Your task to perform on an android device: Clear the shopping cart on newegg. Add "razer naga" to the cart on newegg, then select checkout. Image 0: 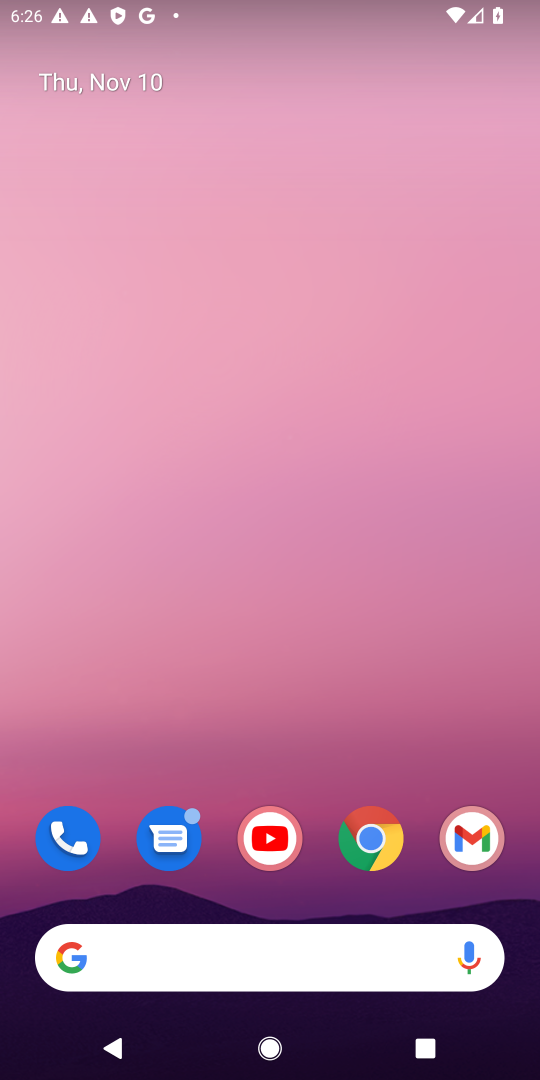
Step 0: drag from (322, 644) to (431, 77)
Your task to perform on an android device: Clear the shopping cart on newegg. Add "razer naga" to the cart on newegg, then select checkout. Image 1: 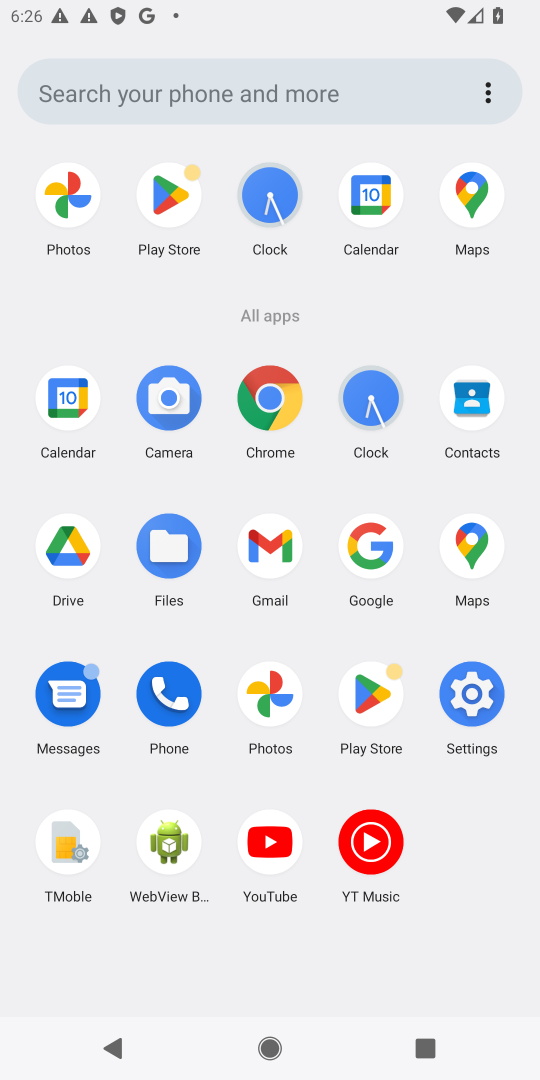
Step 1: click (283, 397)
Your task to perform on an android device: Clear the shopping cart on newegg. Add "razer naga" to the cart on newegg, then select checkout. Image 2: 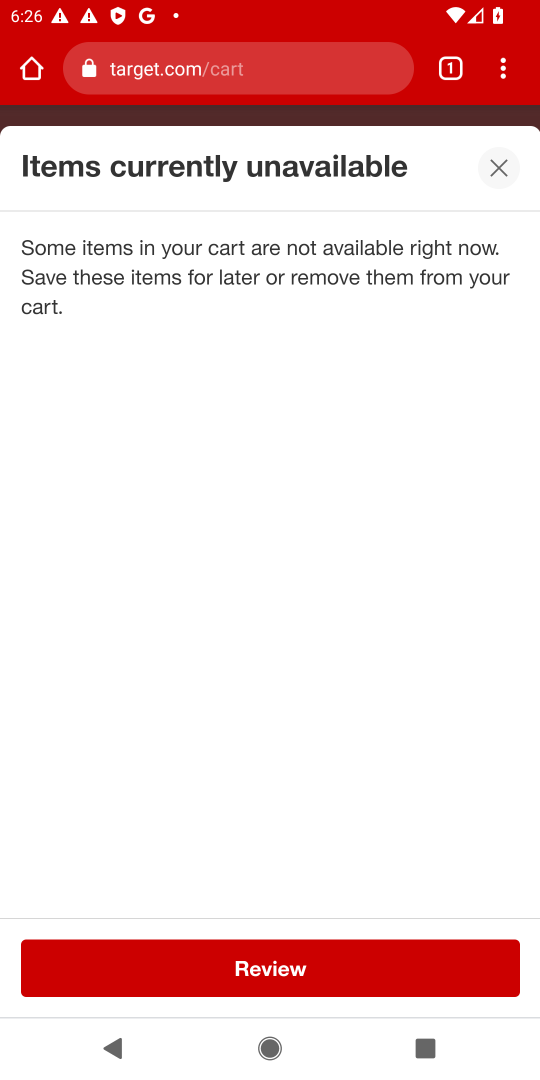
Step 2: click (320, 62)
Your task to perform on an android device: Clear the shopping cart on newegg. Add "razer naga" to the cart on newegg, then select checkout. Image 3: 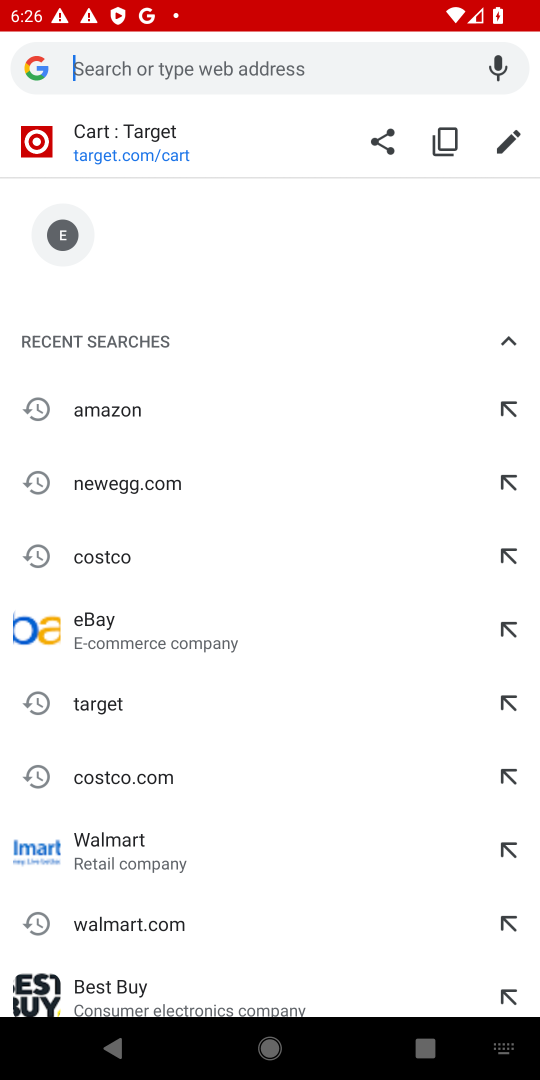
Step 3: type "newegg.com"
Your task to perform on an android device: Clear the shopping cart on newegg. Add "razer naga" to the cart on newegg, then select checkout. Image 4: 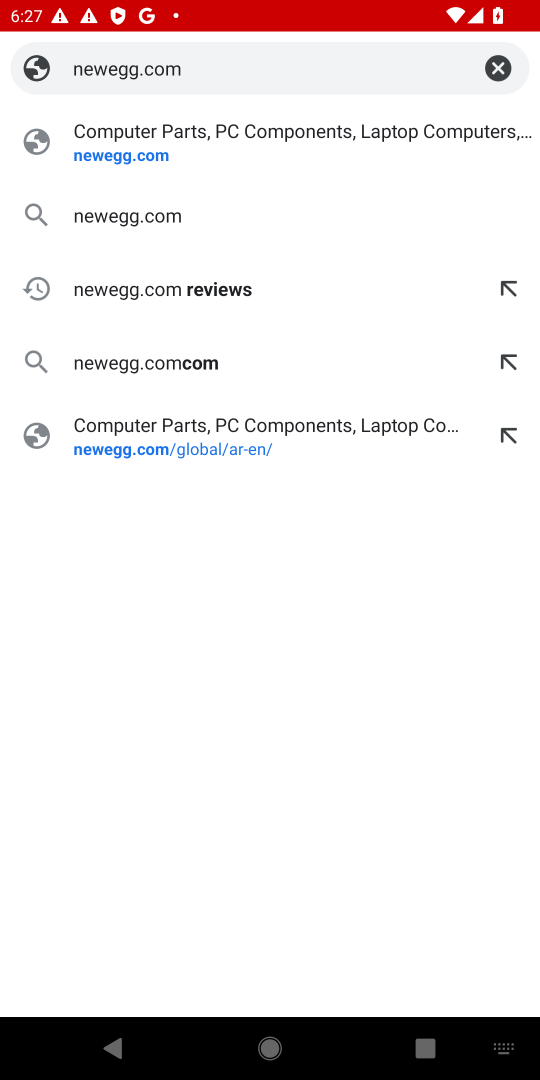
Step 4: press enter
Your task to perform on an android device: Clear the shopping cart on newegg. Add "razer naga" to the cart on newegg, then select checkout. Image 5: 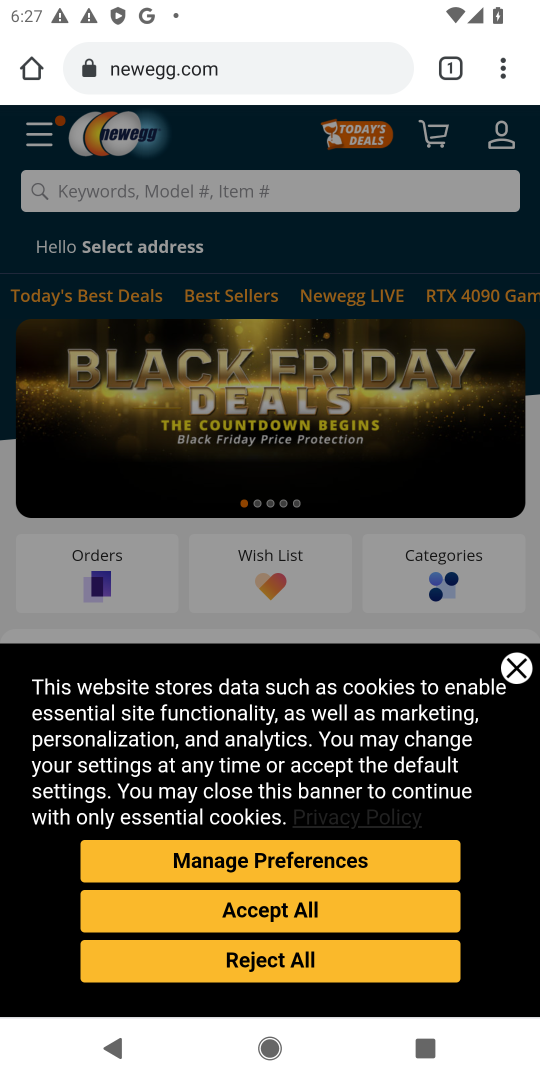
Step 5: click (447, 126)
Your task to perform on an android device: Clear the shopping cart on newegg. Add "razer naga" to the cart on newegg, then select checkout. Image 6: 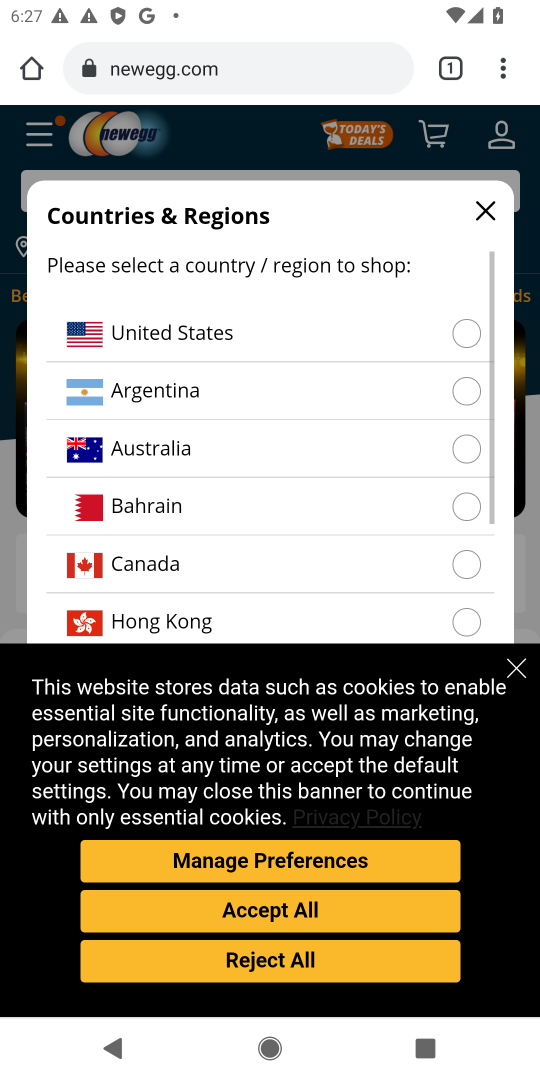
Step 6: click (435, 140)
Your task to perform on an android device: Clear the shopping cart on newegg. Add "razer naga" to the cart on newegg, then select checkout. Image 7: 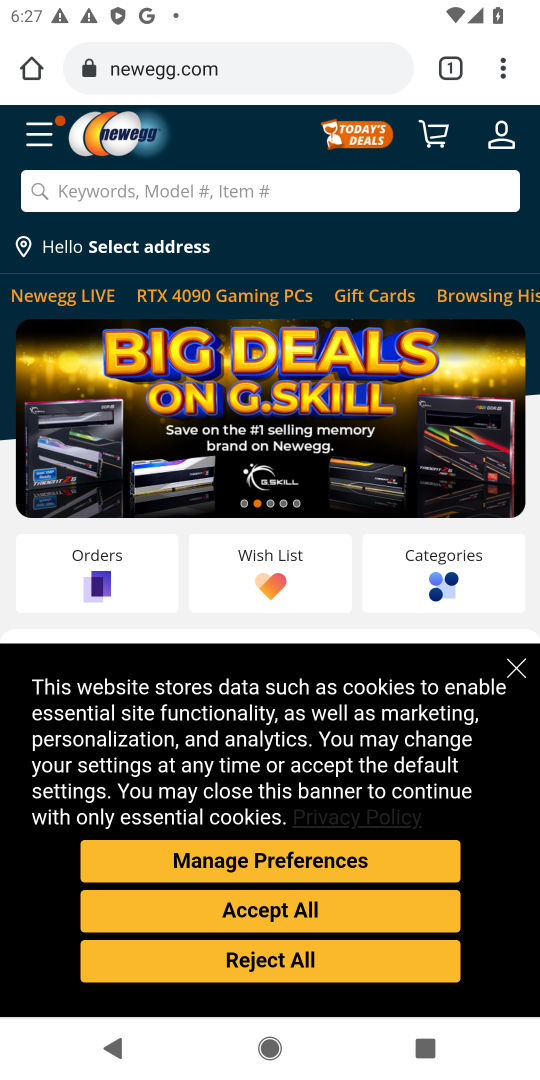
Step 7: click (435, 140)
Your task to perform on an android device: Clear the shopping cart on newegg. Add "razer naga" to the cart on newegg, then select checkout. Image 8: 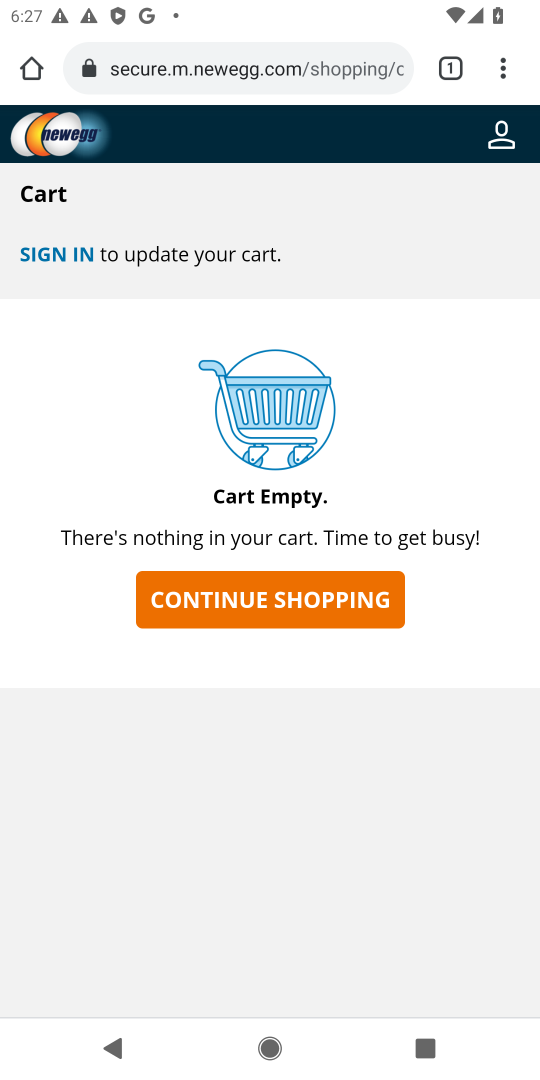
Step 8: click (274, 611)
Your task to perform on an android device: Clear the shopping cart on newegg. Add "razer naga" to the cart on newegg, then select checkout. Image 9: 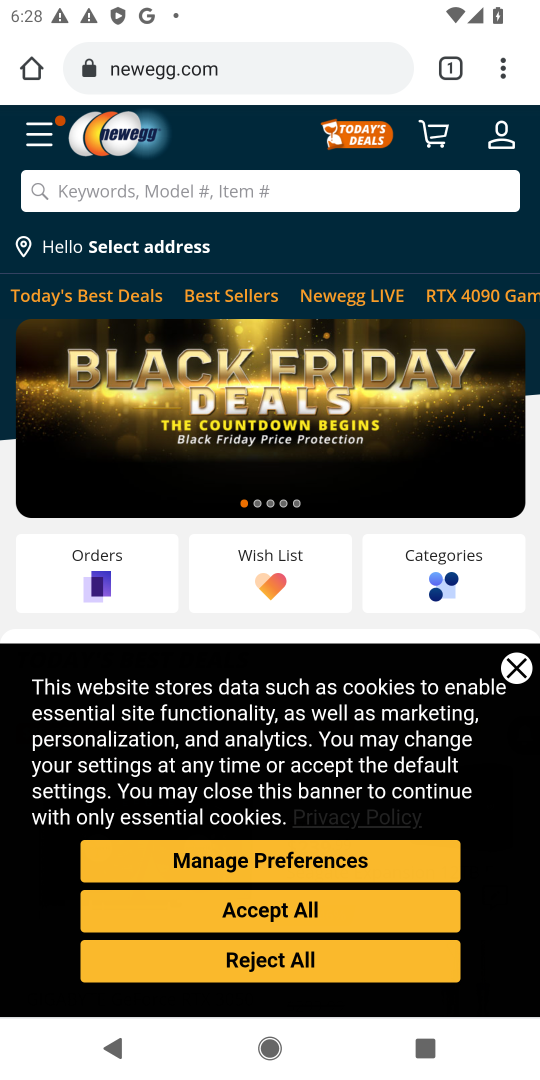
Step 9: click (308, 179)
Your task to perform on an android device: Clear the shopping cart on newegg. Add "razer naga" to the cart on newegg, then select checkout. Image 10: 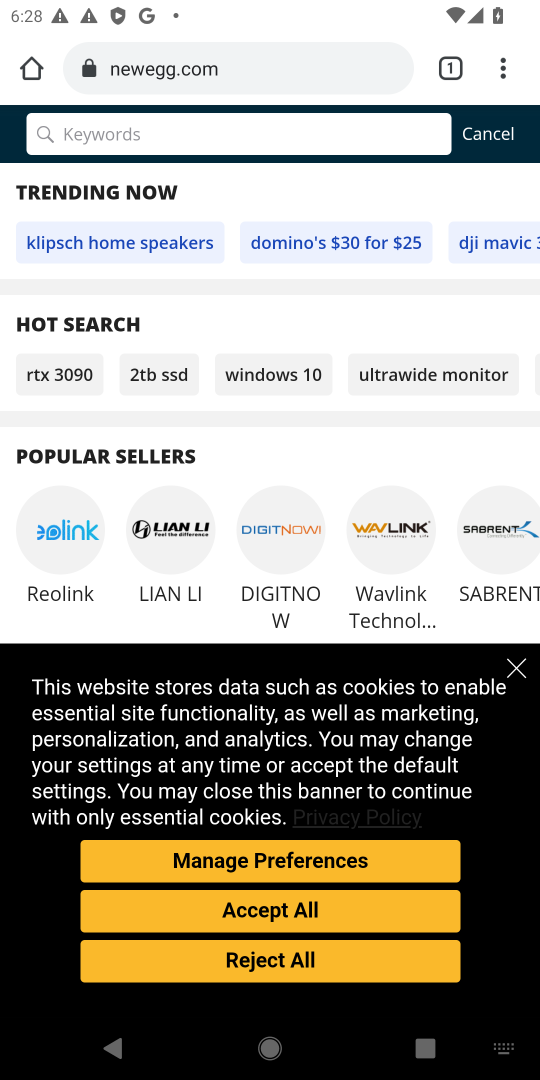
Step 10: type "razer naga"
Your task to perform on an android device: Clear the shopping cart on newegg. Add "razer naga" to the cart on newegg, then select checkout. Image 11: 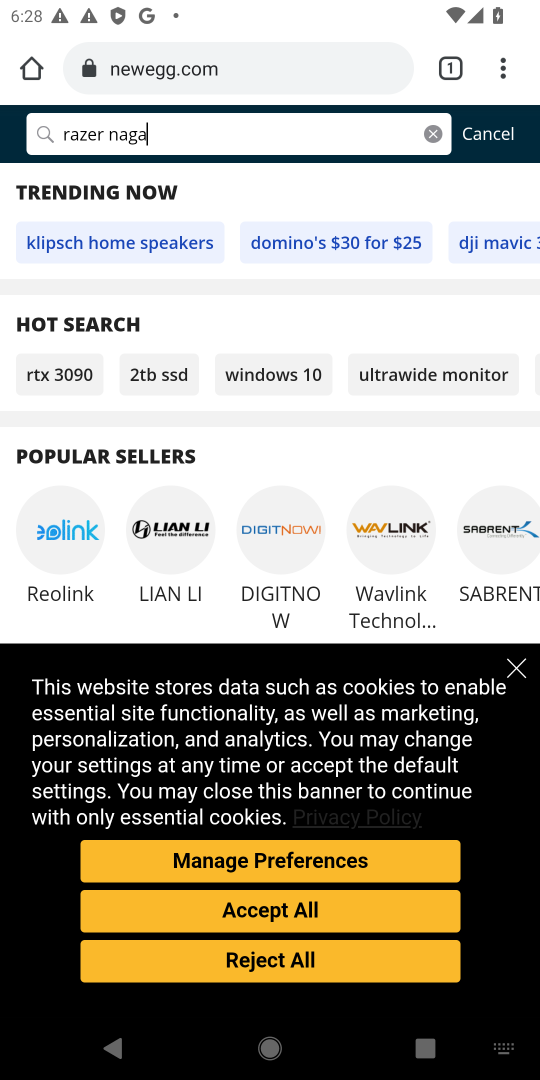
Step 11: press enter
Your task to perform on an android device: Clear the shopping cart on newegg. Add "razer naga" to the cart on newegg, then select checkout. Image 12: 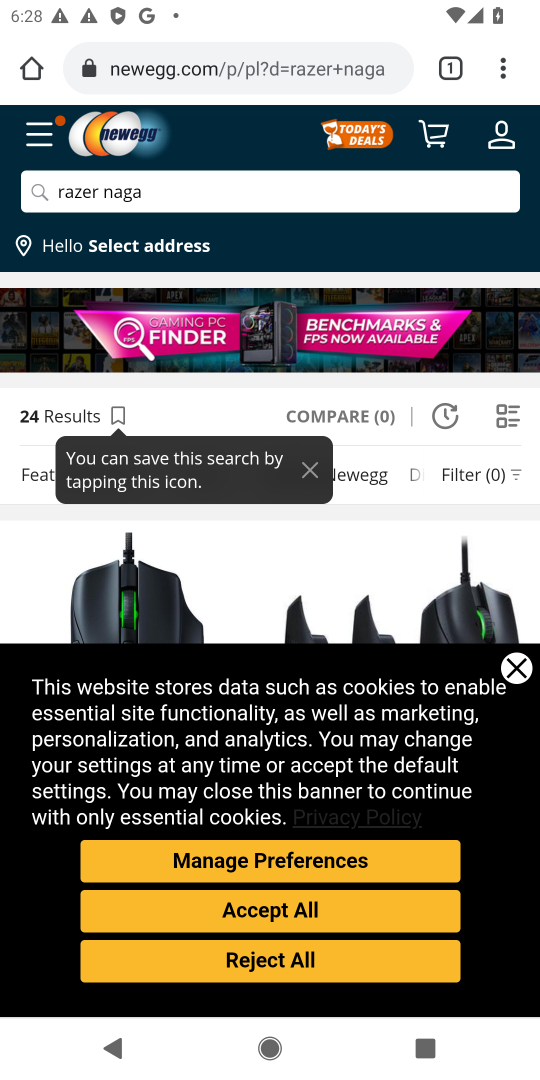
Step 12: click (331, 918)
Your task to perform on an android device: Clear the shopping cart on newegg. Add "razer naga" to the cart on newegg, then select checkout. Image 13: 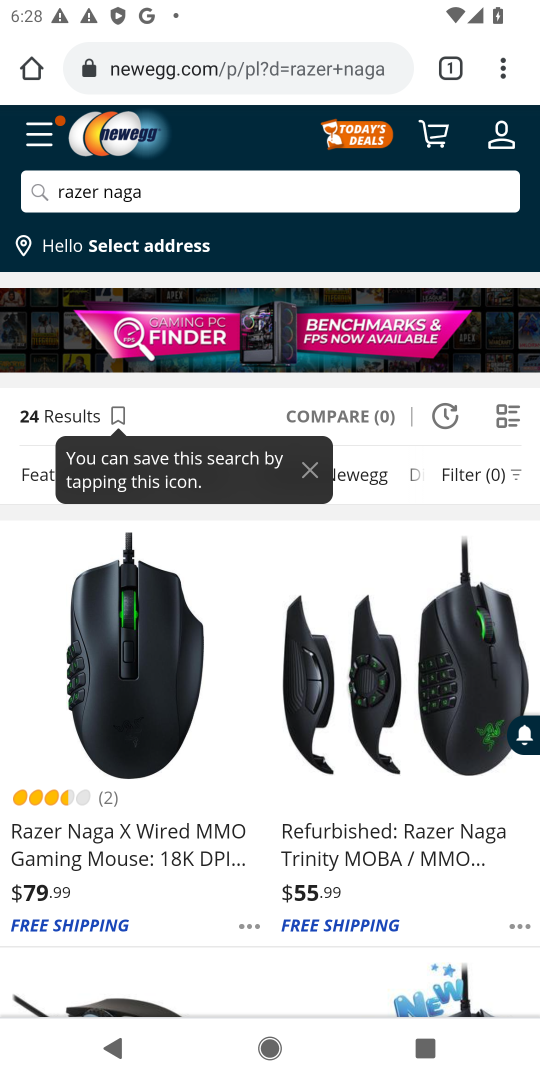
Step 13: click (132, 841)
Your task to perform on an android device: Clear the shopping cart on newegg. Add "razer naga" to the cart on newegg, then select checkout. Image 14: 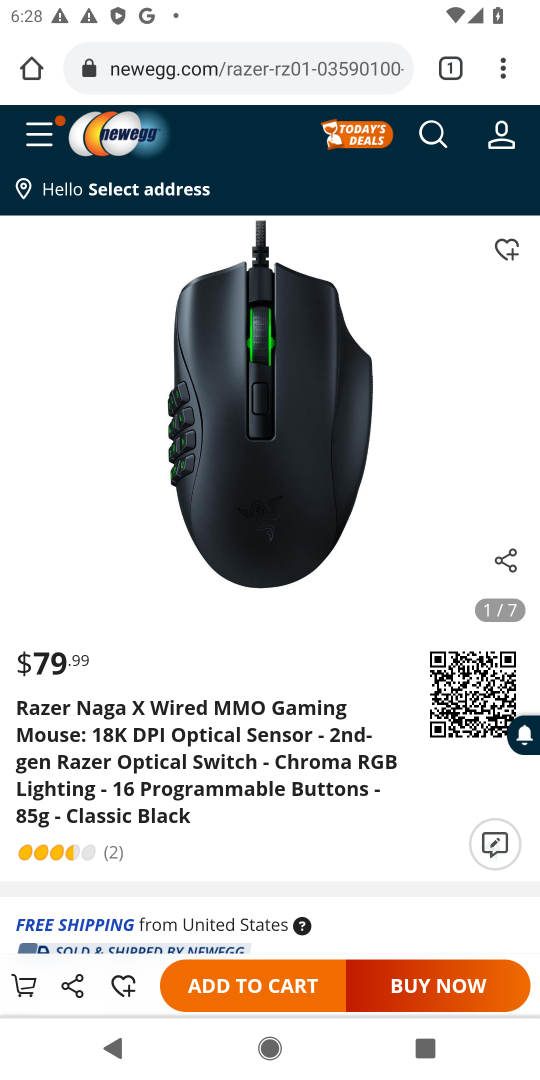
Step 14: click (236, 985)
Your task to perform on an android device: Clear the shopping cart on newegg. Add "razer naga" to the cart on newegg, then select checkout. Image 15: 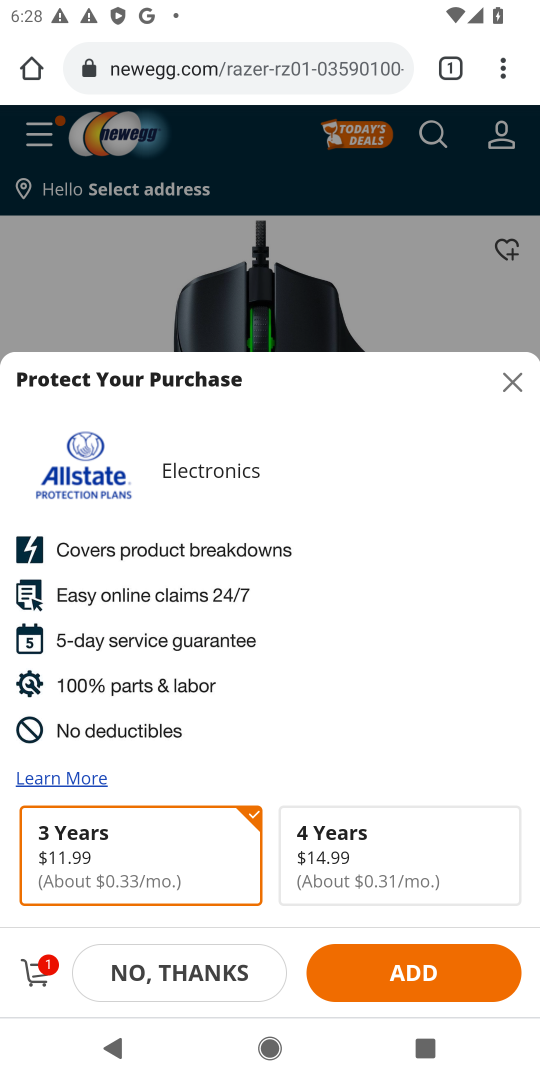
Step 15: click (48, 977)
Your task to perform on an android device: Clear the shopping cart on newegg. Add "razer naga" to the cart on newegg, then select checkout. Image 16: 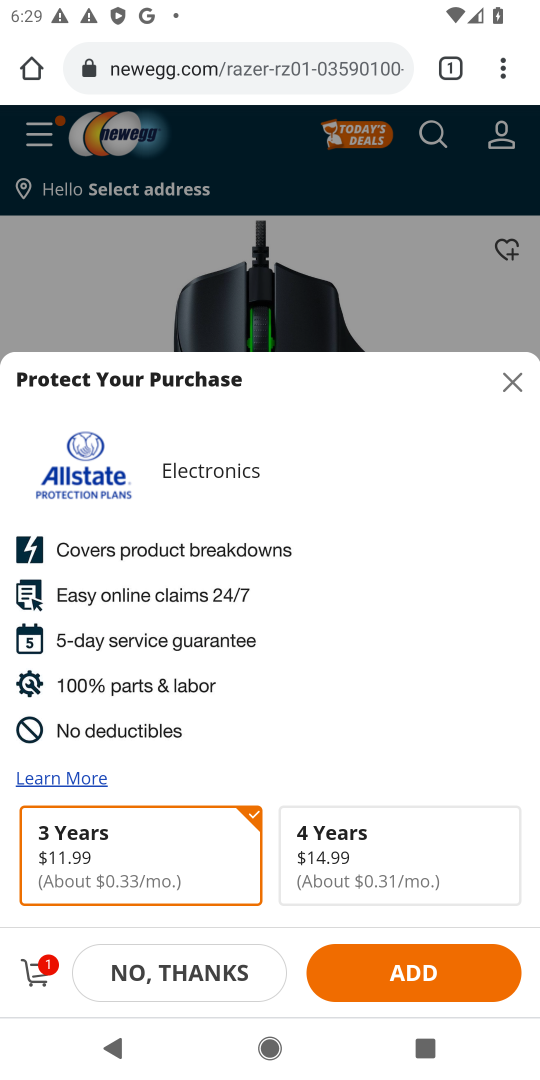
Step 16: click (40, 967)
Your task to perform on an android device: Clear the shopping cart on newegg. Add "razer naga" to the cart on newegg, then select checkout. Image 17: 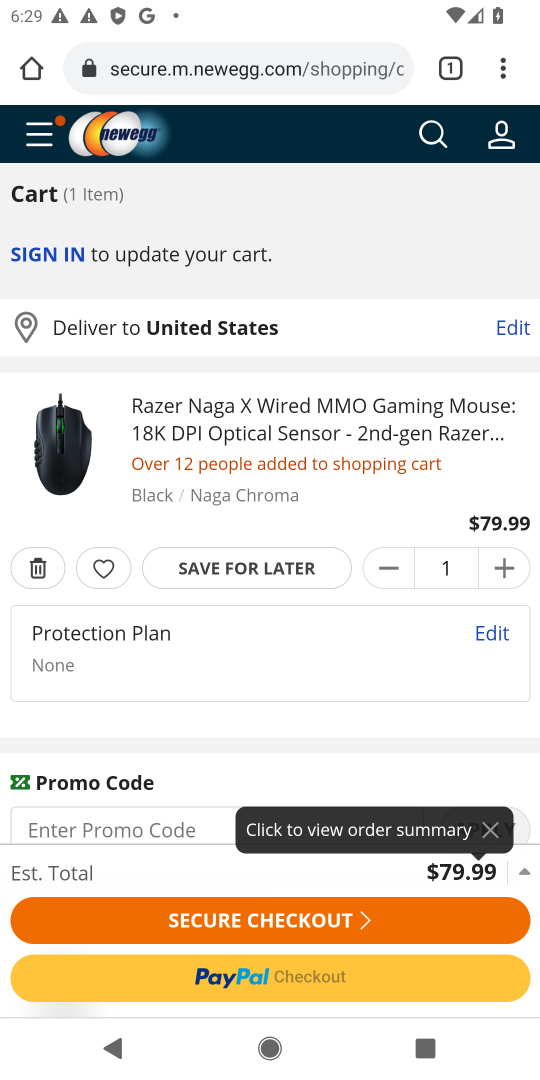
Step 17: click (376, 922)
Your task to perform on an android device: Clear the shopping cart on newegg. Add "razer naga" to the cart on newegg, then select checkout. Image 18: 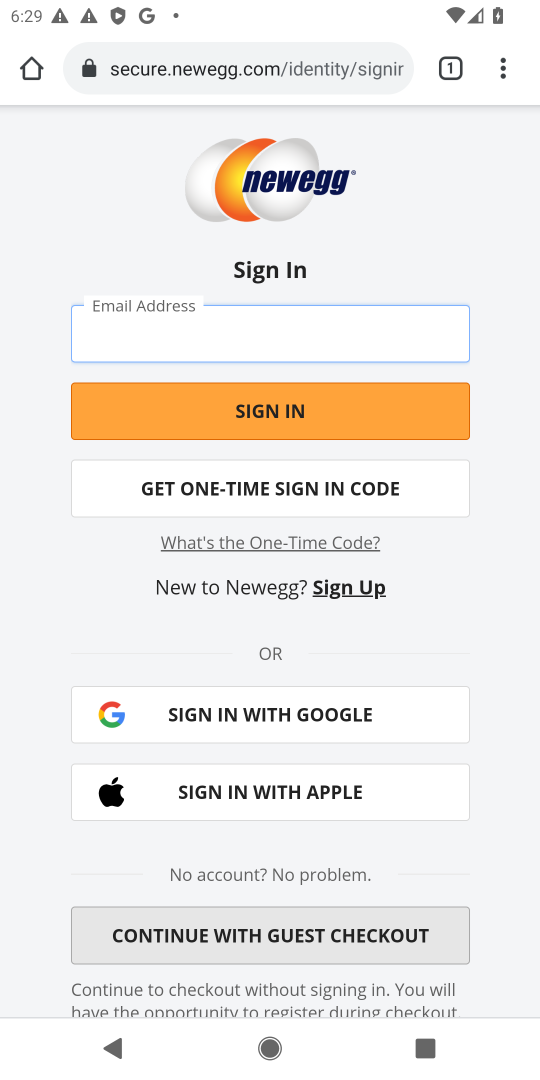
Step 18: task complete